Your task to perform on an android device: turn off data saver in the chrome app Image 0: 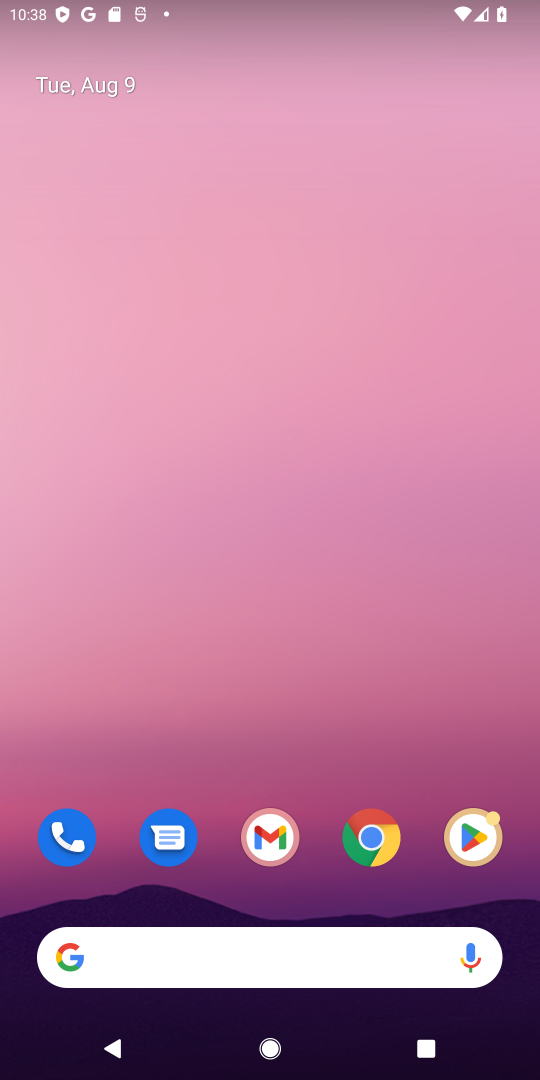
Step 0: click (362, 831)
Your task to perform on an android device: turn off data saver in the chrome app Image 1: 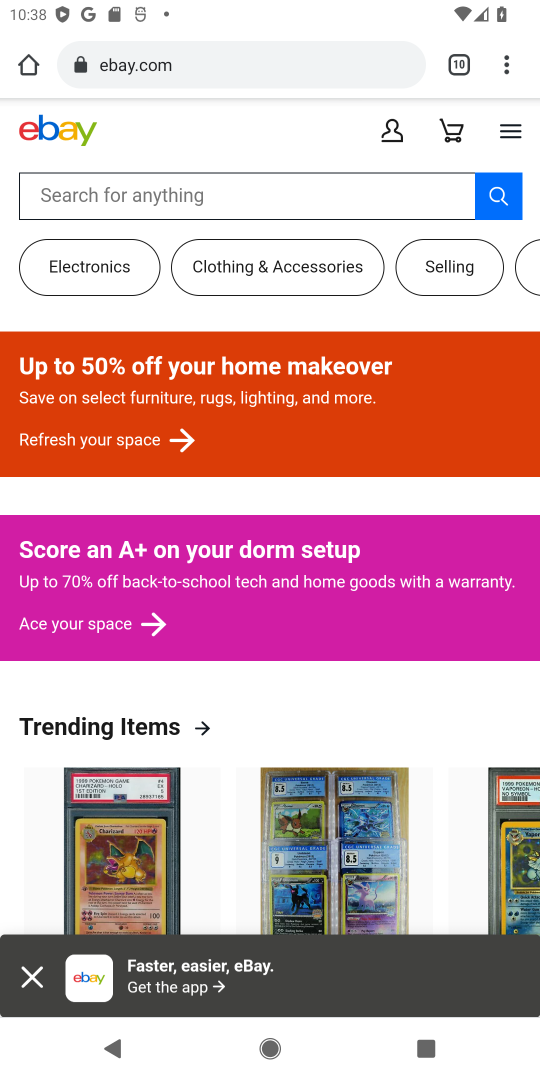
Step 1: drag from (511, 66) to (322, 861)
Your task to perform on an android device: turn off data saver in the chrome app Image 2: 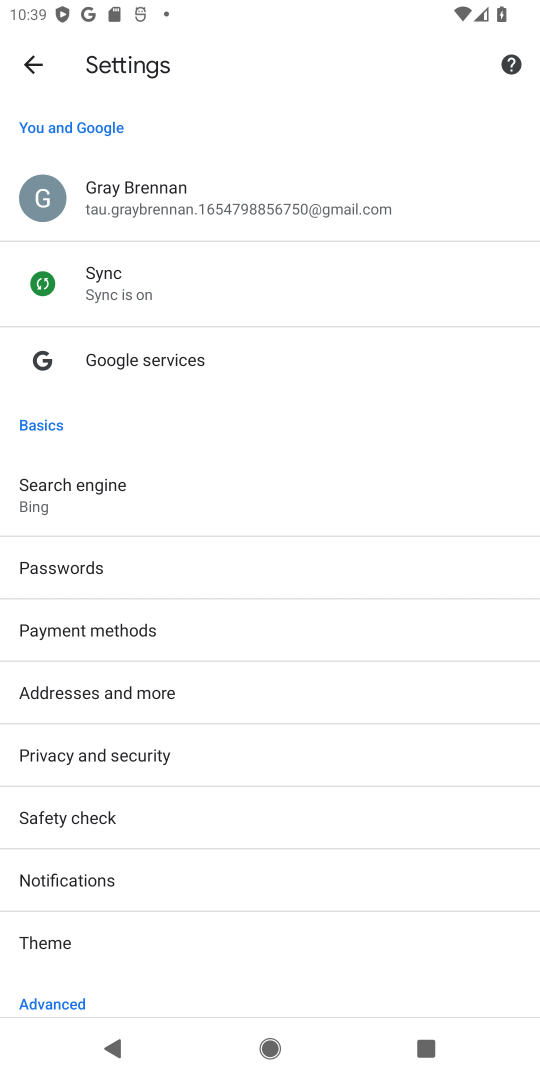
Step 2: drag from (145, 904) to (143, 457)
Your task to perform on an android device: turn off data saver in the chrome app Image 3: 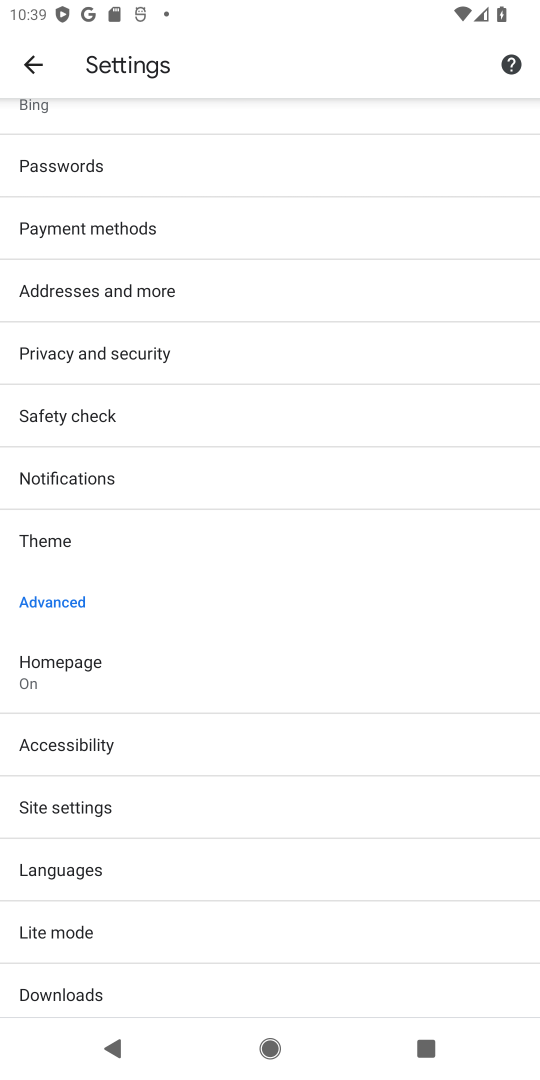
Step 3: click (68, 925)
Your task to perform on an android device: turn off data saver in the chrome app Image 4: 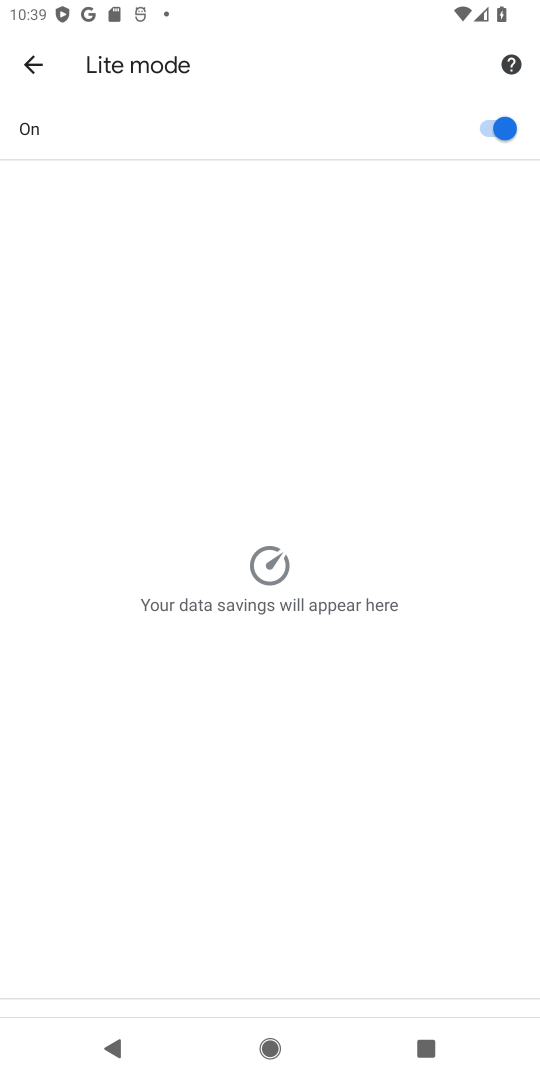
Step 4: click (501, 130)
Your task to perform on an android device: turn off data saver in the chrome app Image 5: 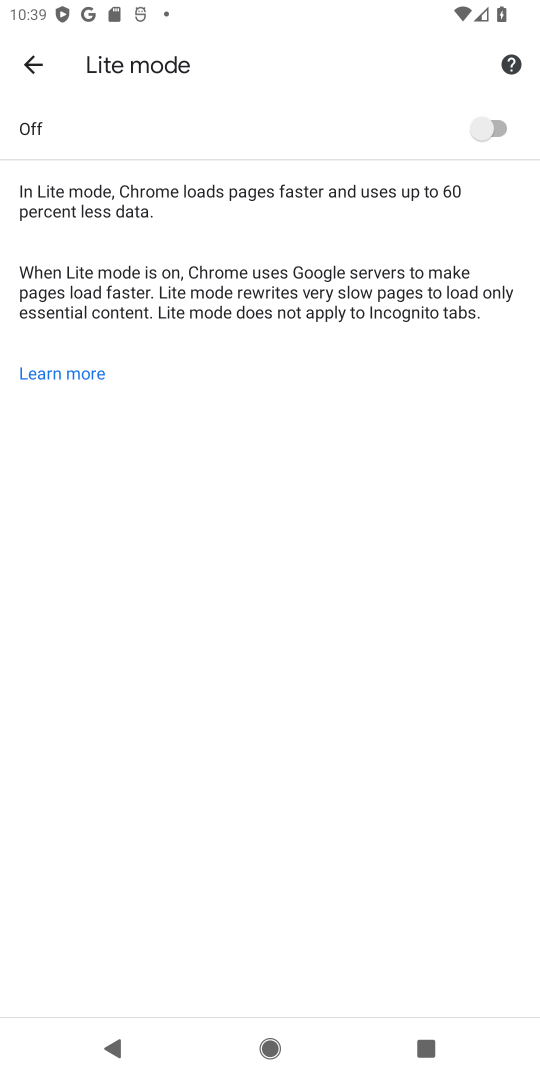
Step 5: task complete